Your task to perform on an android device: Go to Google maps Image 0: 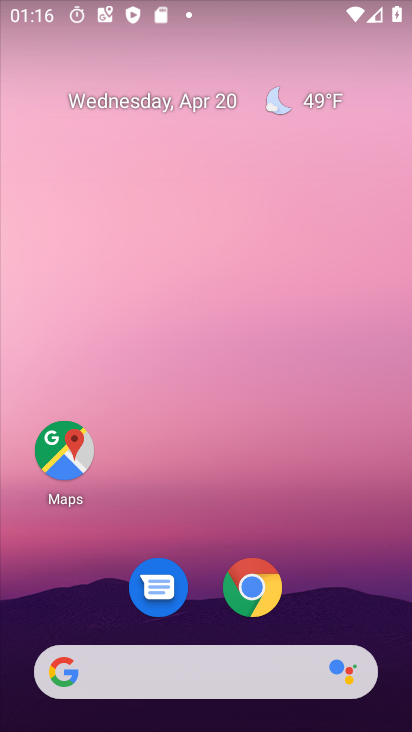
Step 0: click (60, 459)
Your task to perform on an android device: Go to Google maps Image 1: 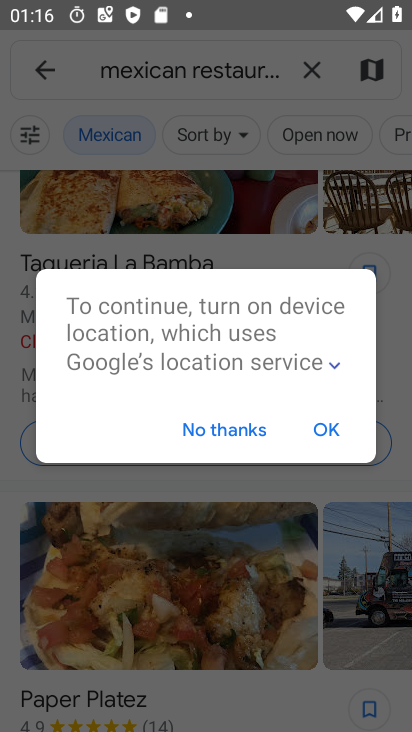
Step 1: click (241, 432)
Your task to perform on an android device: Go to Google maps Image 2: 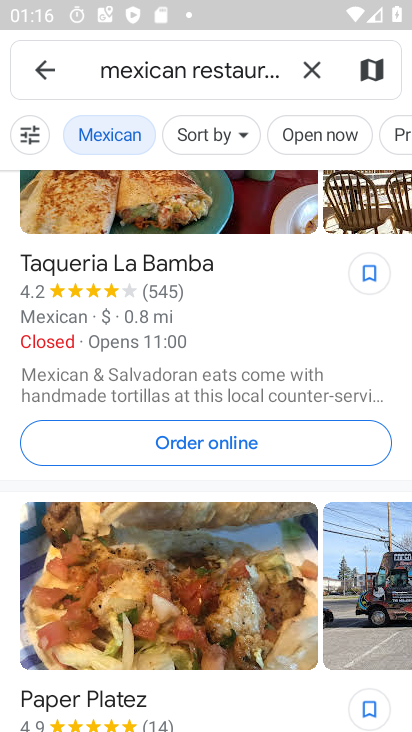
Step 2: task complete